Your task to perform on an android device: set default search engine in the chrome app Image 0: 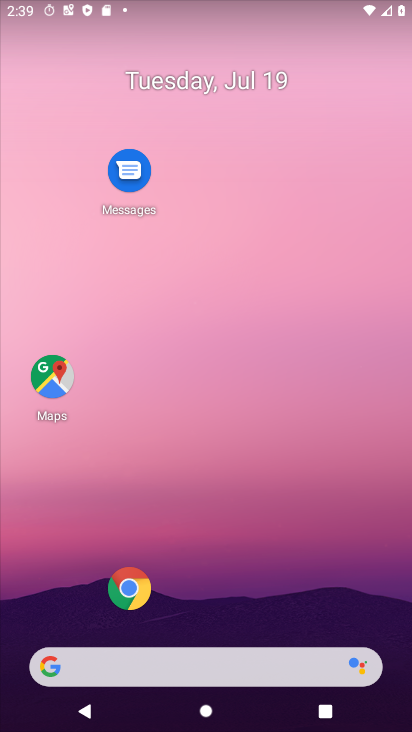
Step 0: click (129, 585)
Your task to perform on an android device: set default search engine in the chrome app Image 1: 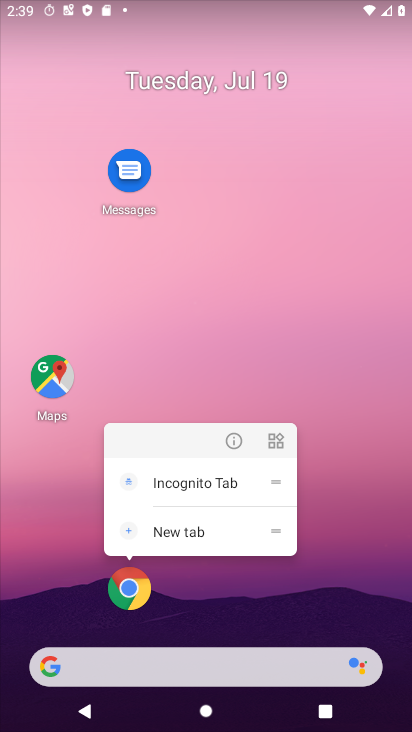
Step 1: click (140, 602)
Your task to perform on an android device: set default search engine in the chrome app Image 2: 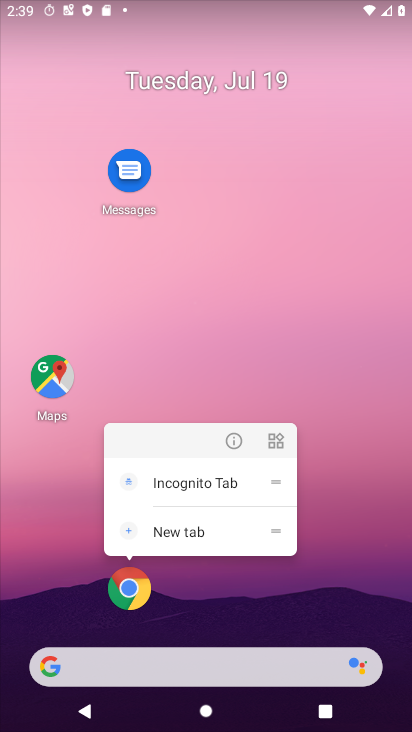
Step 2: click (124, 597)
Your task to perform on an android device: set default search engine in the chrome app Image 3: 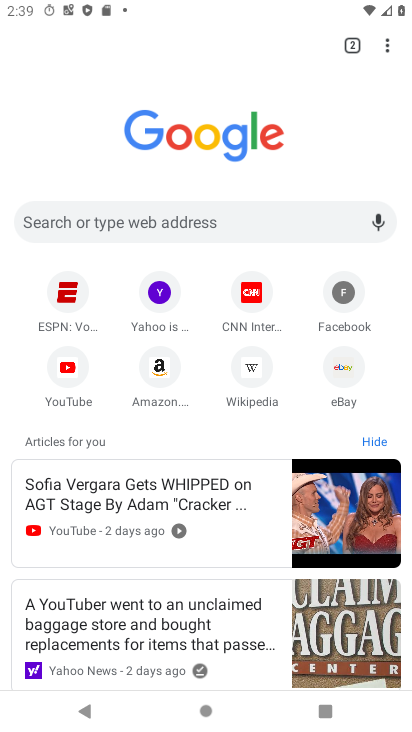
Step 3: click (382, 41)
Your task to perform on an android device: set default search engine in the chrome app Image 4: 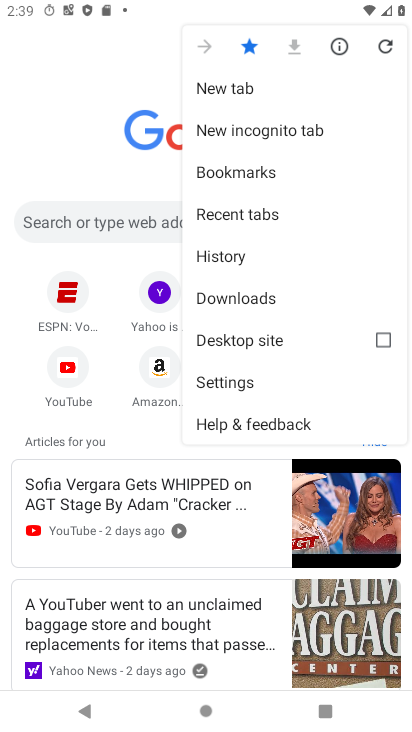
Step 4: click (221, 373)
Your task to perform on an android device: set default search engine in the chrome app Image 5: 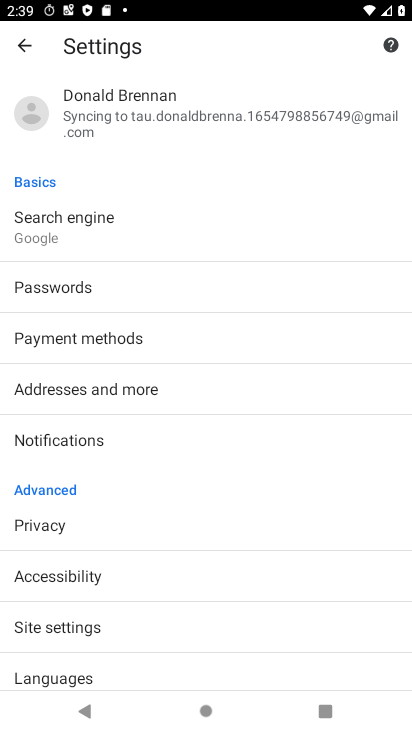
Step 5: task complete